Your task to perform on an android device: turn off priority inbox in the gmail app Image 0: 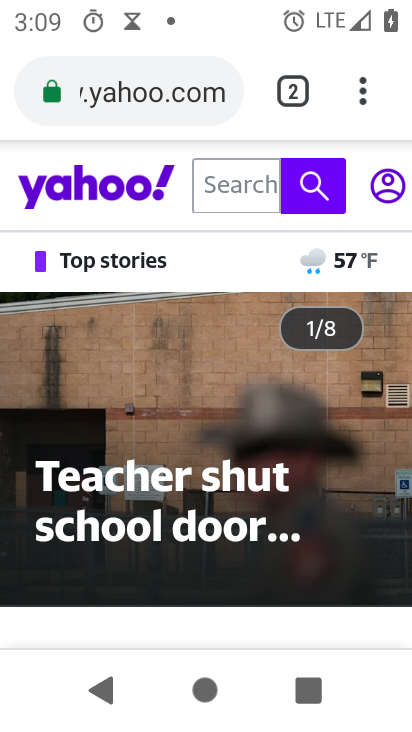
Step 0: press home button
Your task to perform on an android device: turn off priority inbox in the gmail app Image 1: 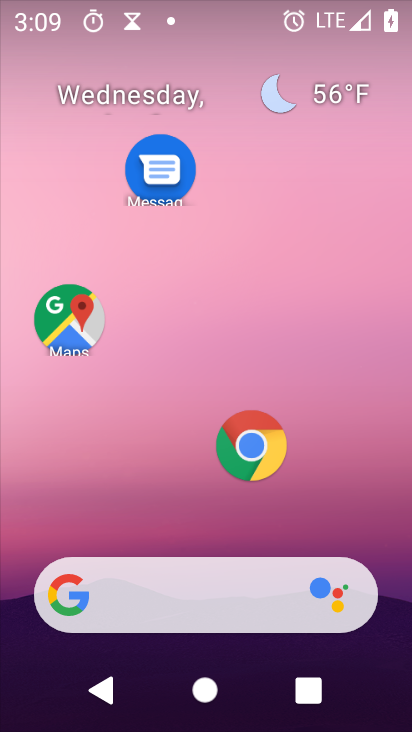
Step 1: drag from (13, 646) to (233, 172)
Your task to perform on an android device: turn off priority inbox in the gmail app Image 2: 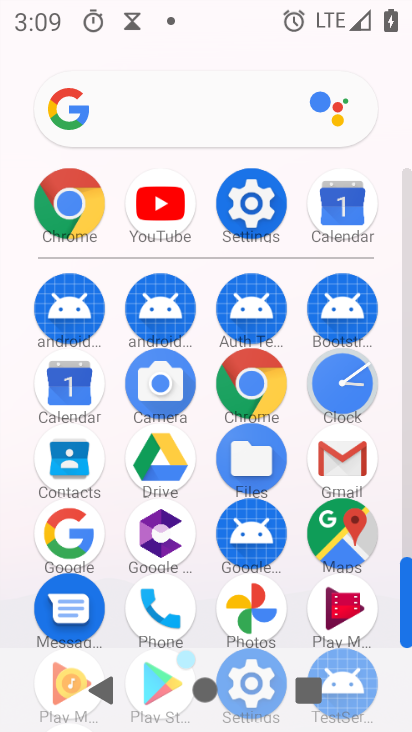
Step 2: click (347, 444)
Your task to perform on an android device: turn off priority inbox in the gmail app Image 3: 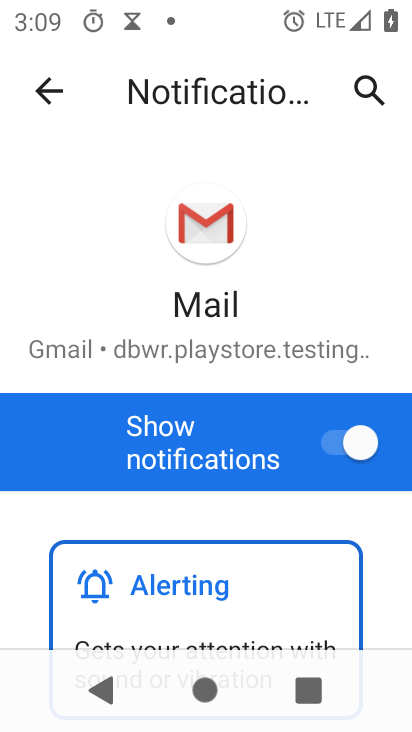
Step 3: click (36, 91)
Your task to perform on an android device: turn off priority inbox in the gmail app Image 4: 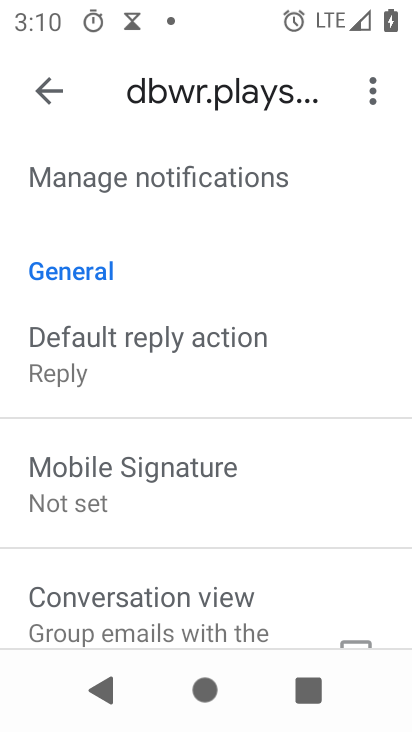
Step 4: drag from (116, 216) to (115, 330)
Your task to perform on an android device: turn off priority inbox in the gmail app Image 5: 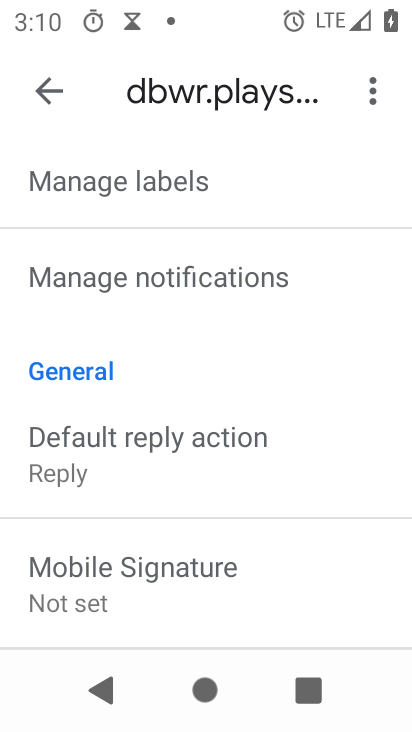
Step 5: drag from (128, 200) to (229, 637)
Your task to perform on an android device: turn off priority inbox in the gmail app Image 6: 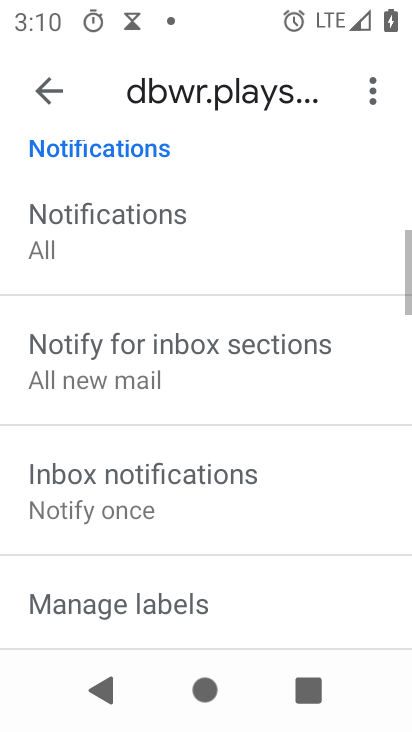
Step 6: drag from (206, 144) to (241, 583)
Your task to perform on an android device: turn off priority inbox in the gmail app Image 7: 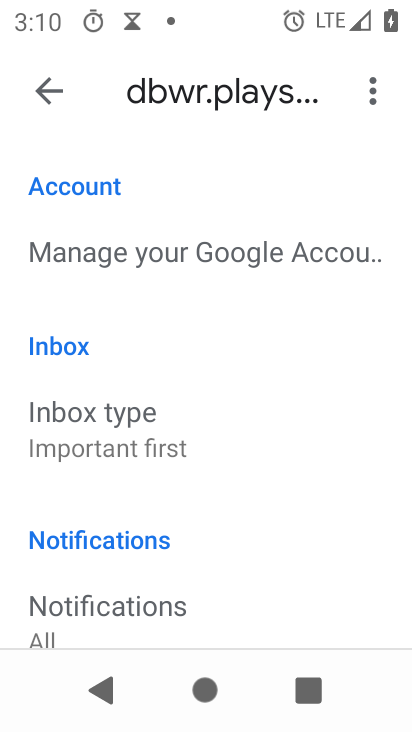
Step 7: click (134, 429)
Your task to perform on an android device: turn off priority inbox in the gmail app Image 8: 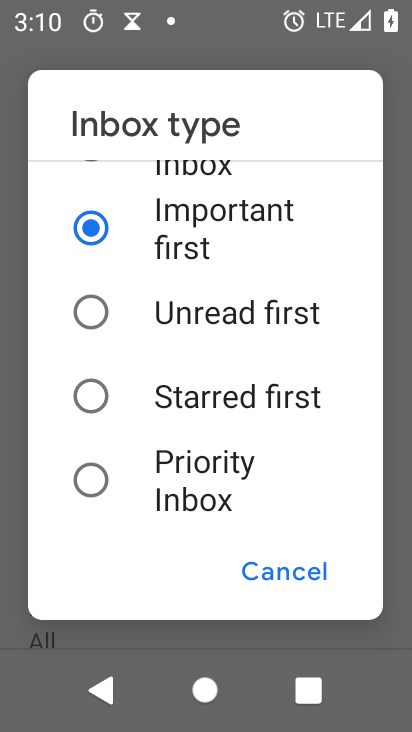
Step 8: task complete